Your task to perform on an android device: set the timer Image 0: 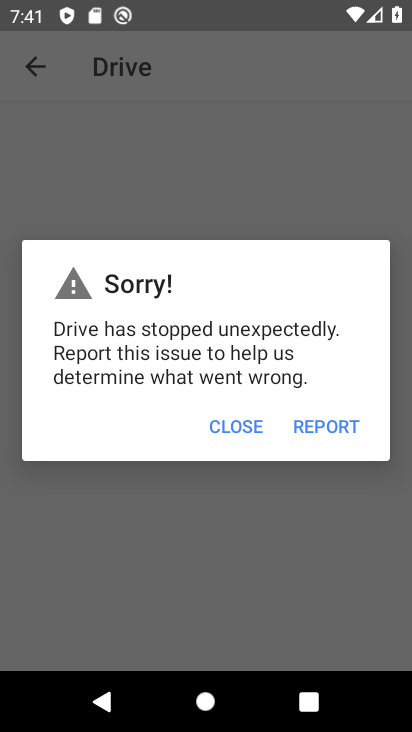
Step 0: press home button
Your task to perform on an android device: set the timer Image 1: 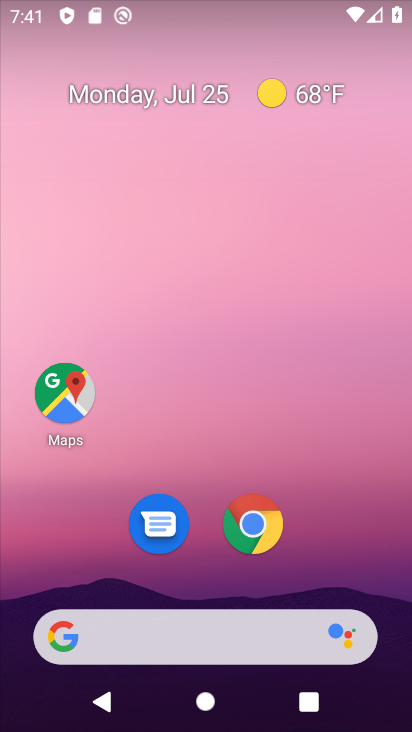
Step 1: drag from (310, 225) to (271, 97)
Your task to perform on an android device: set the timer Image 2: 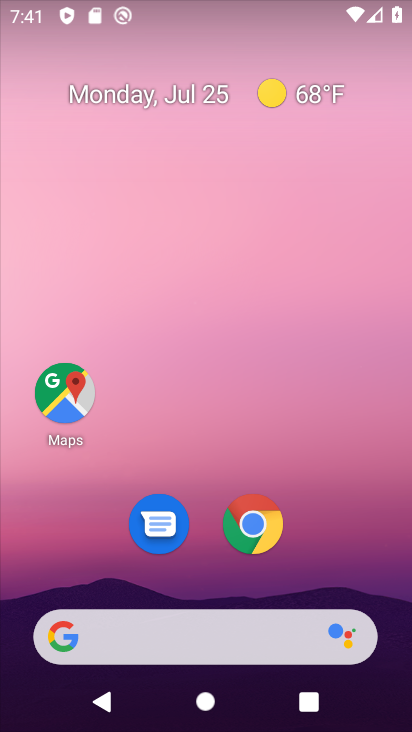
Step 2: drag from (235, 421) to (260, 2)
Your task to perform on an android device: set the timer Image 3: 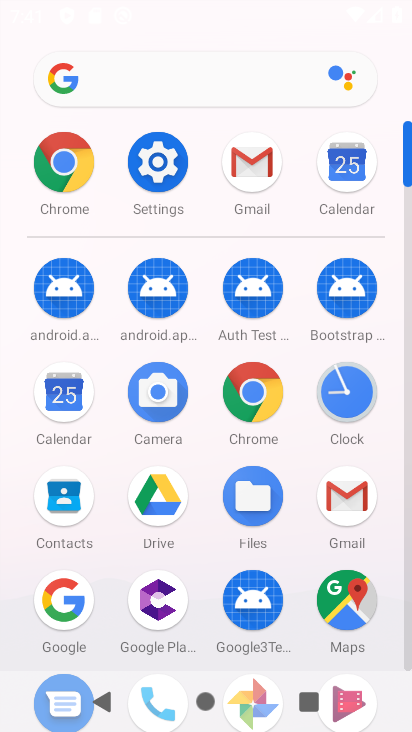
Step 3: click (358, 404)
Your task to perform on an android device: set the timer Image 4: 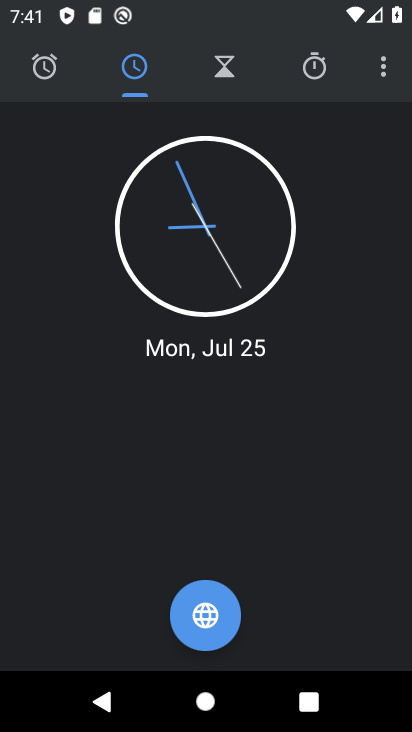
Step 4: click (224, 74)
Your task to perform on an android device: set the timer Image 5: 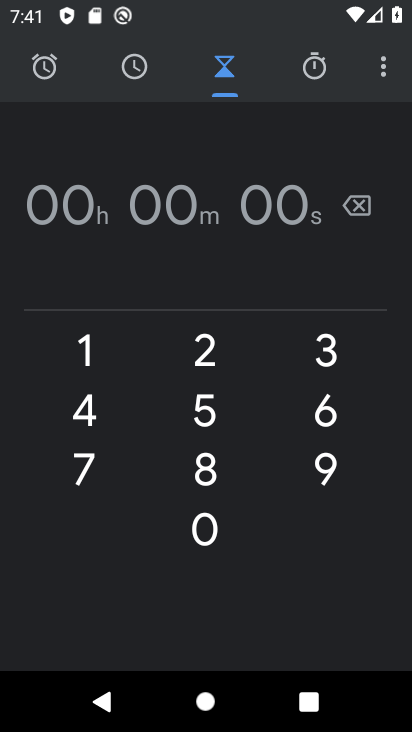
Step 5: task complete